Your task to perform on an android device: turn off location history Image 0: 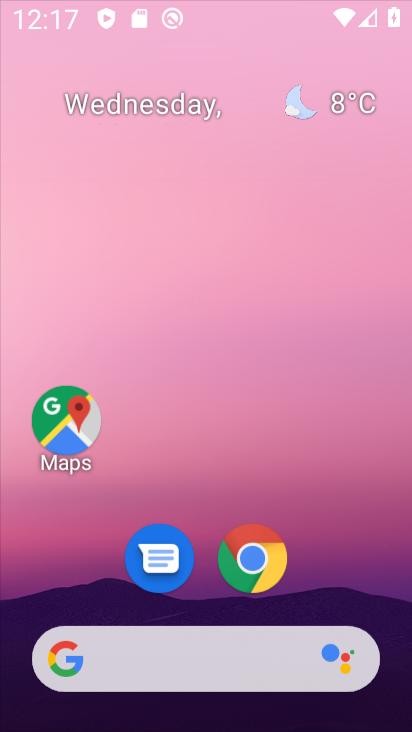
Step 0: click (246, 49)
Your task to perform on an android device: turn off location history Image 1: 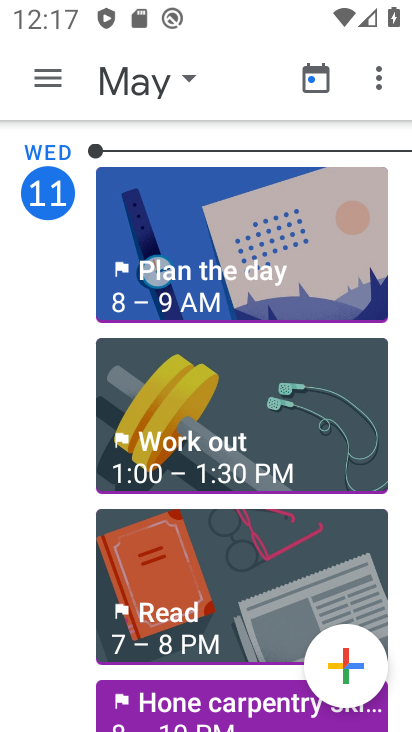
Step 1: press back button
Your task to perform on an android device: turn off location history Image 2: 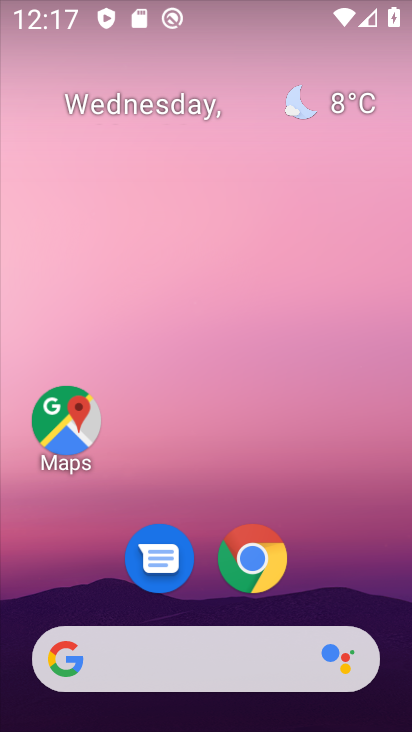
Step 2: drag from (338, 513) to (257, 0)
Your task to perform on an android device: turn off location history Image 3: 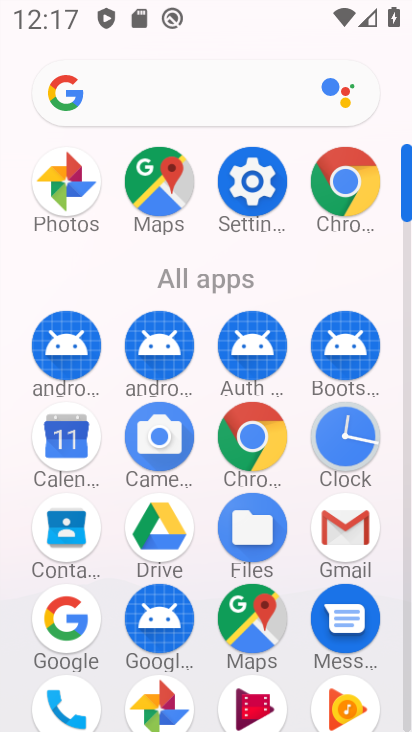
Step 3: drag from (28, 547) to (16, 232)
Your task to perform on an android device: turn off location history Image 4: 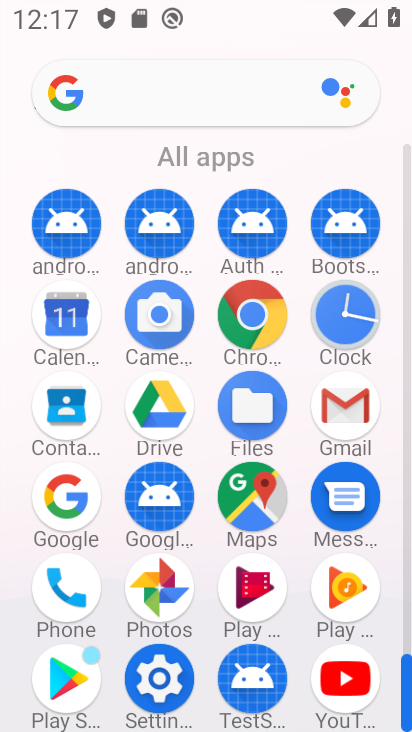
Step 4: click (158, 675)
Your task to perform on an android device: turn off location history Image 5: 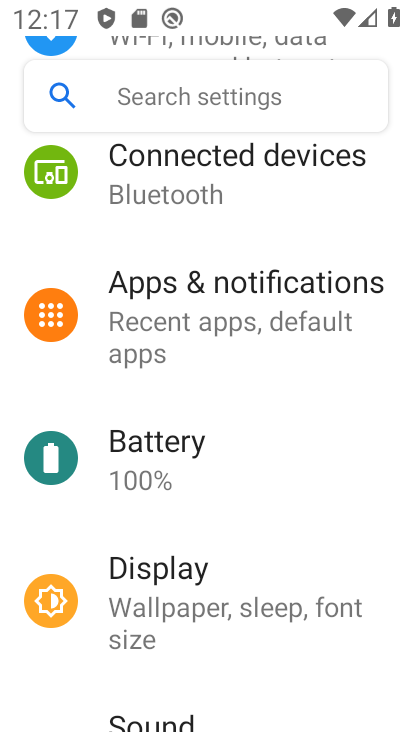
Step 5: drag from (282, 571) to (291, 149)
Your task to perform on an android device: turn off location history Image 6: 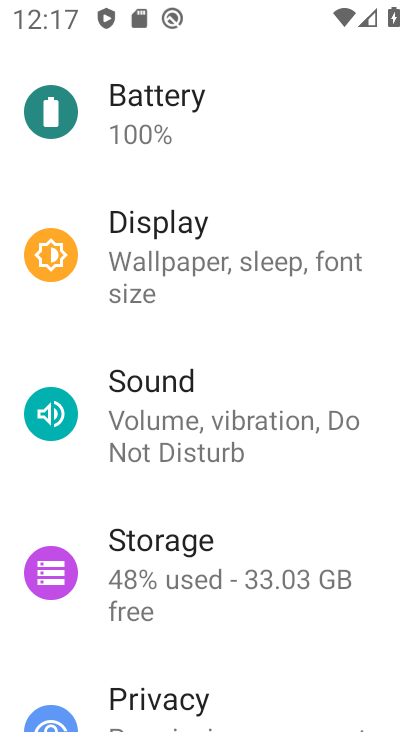
Step 6: drag from (309, 588) to (310, 88)
Your task to perform on an android device: turn off location history Image 7: 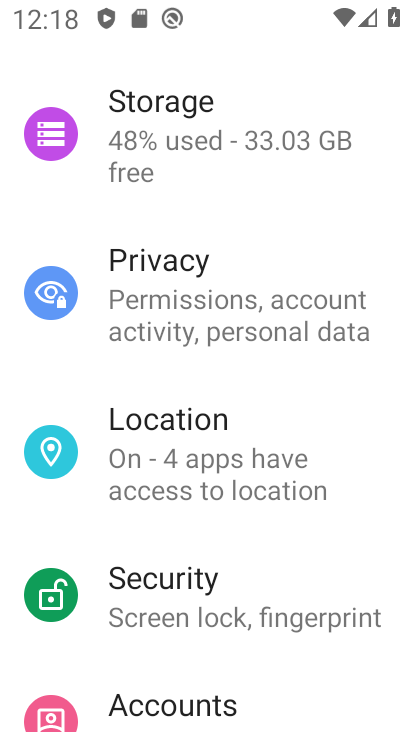
Step 7: click (225, 443)
Your task to perform on an android device: turn off location history Image 8: 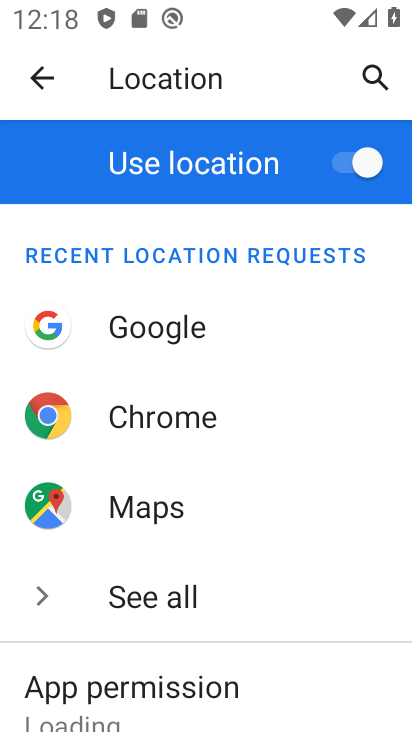
Step 8: click (365, 157)
Your task to perform on an android device: turn off location history Image 9: 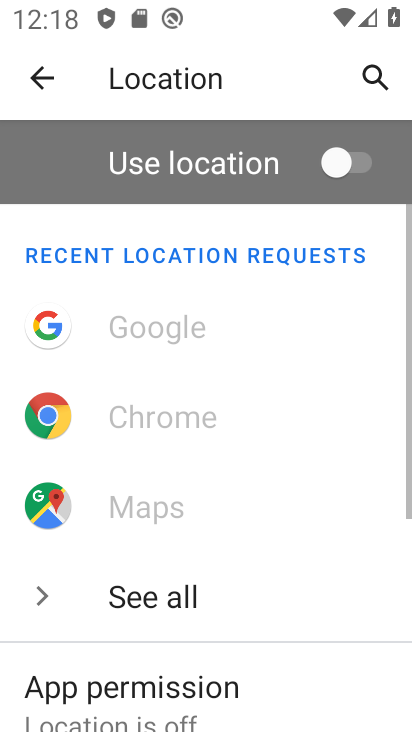
Step 9: drag from (266, 625) to (245, 203)
Your task to perform on an android device: turn off location history Image 10: 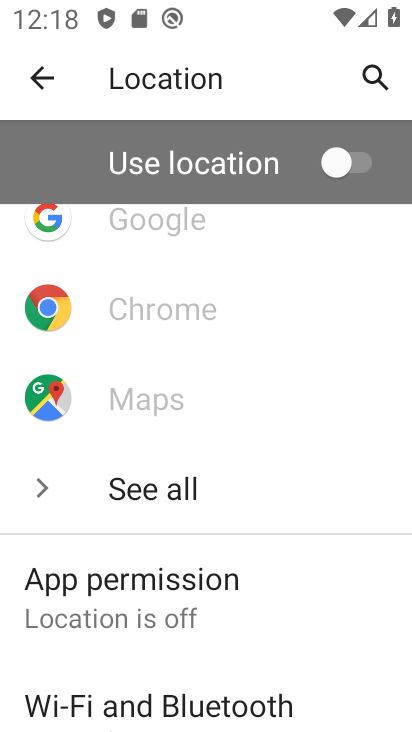
Step 10: drag from (247, 581) to (262, 196)
Your task to perform on an android device: turn off location history Image 11: 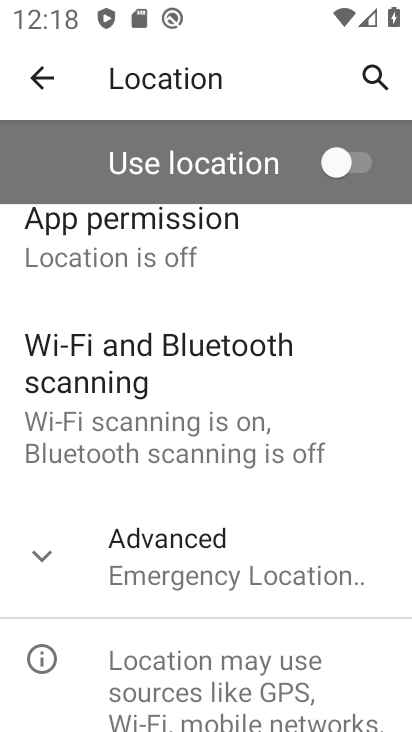
Step 11: click (206, 527)
Your task to perform on an android device: turn off location history Image 12: 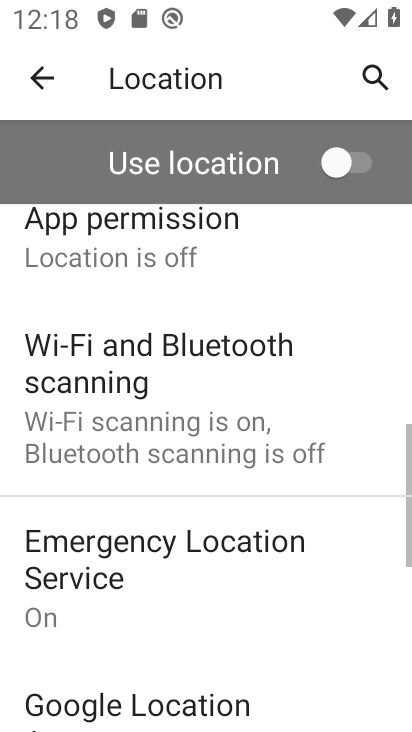
Step 12: drag from (260, 525) to (268, 197)
Your task to perform on an android device: turn off location history Image 13: 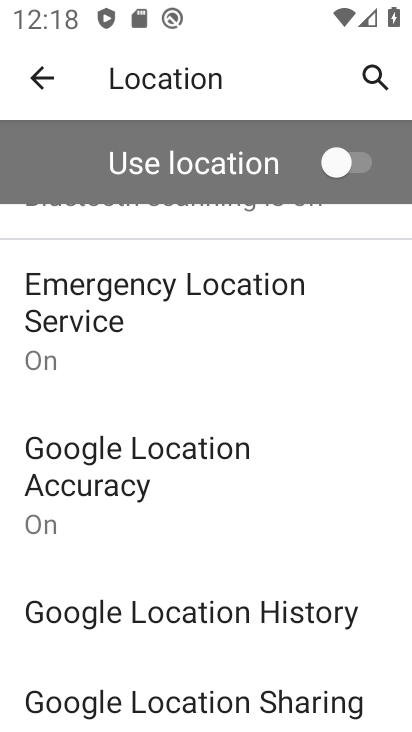
Step 13: click (227, 613)
Your task to perform on an android device: turn off location history Image 14: 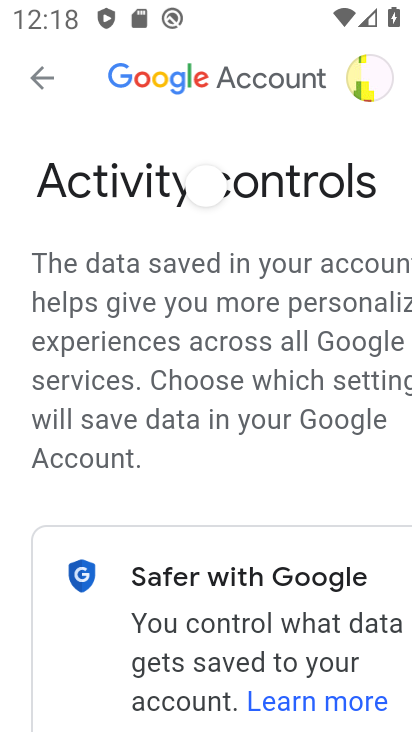
Step 14: task complete